Your task to perform on an android device: toggle pop-ups in chrome Image 0: 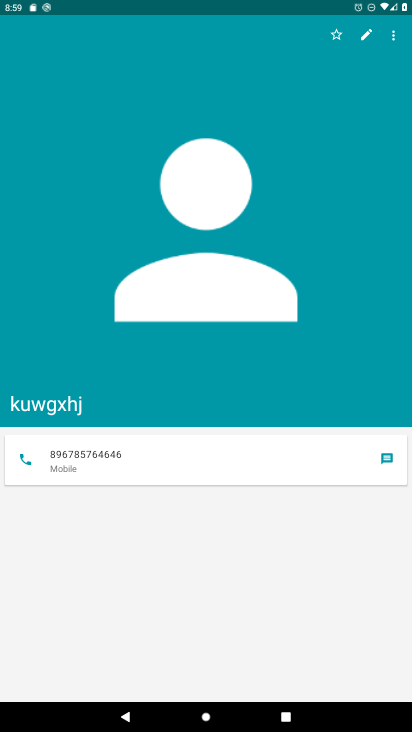
Step 0: press home button
Your task to perform on an android device: toggle pop-ups in chrome Image 1: 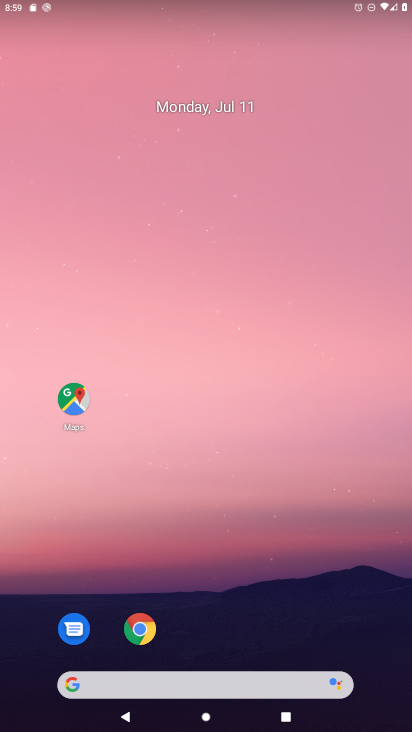
Step 1: click (141, 632)
Your task to perform on an android device: toggle pop-ups in chrome Image 2: 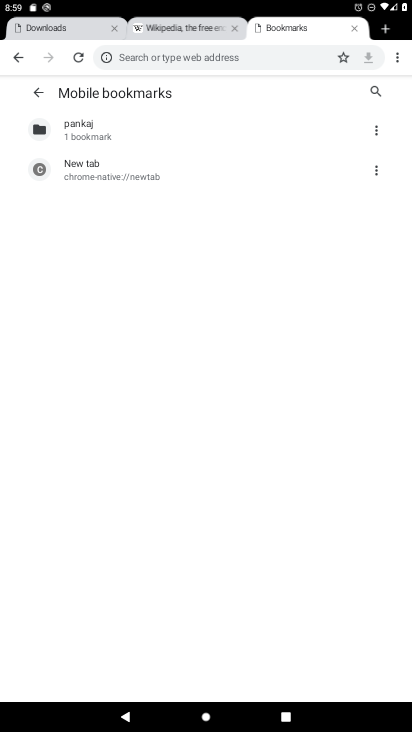
Step 2: click (392, 62)
Your task to perform on an android device: toggle pop-ups in chrome Image 3: 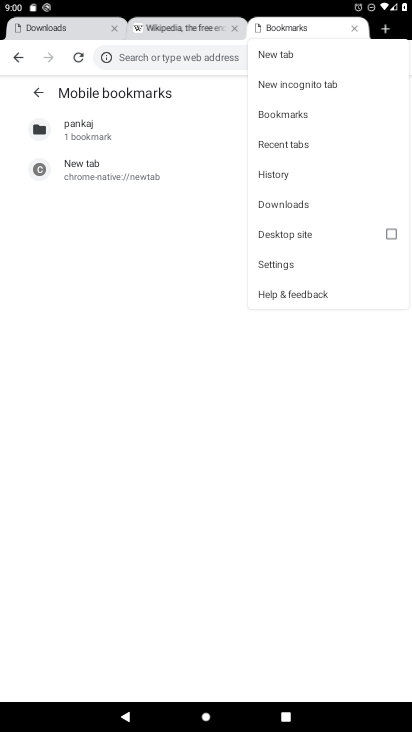
Step 3: click (284, 265)
Your task to perform on an android device: toggle pop-ups in chrome Image 4: 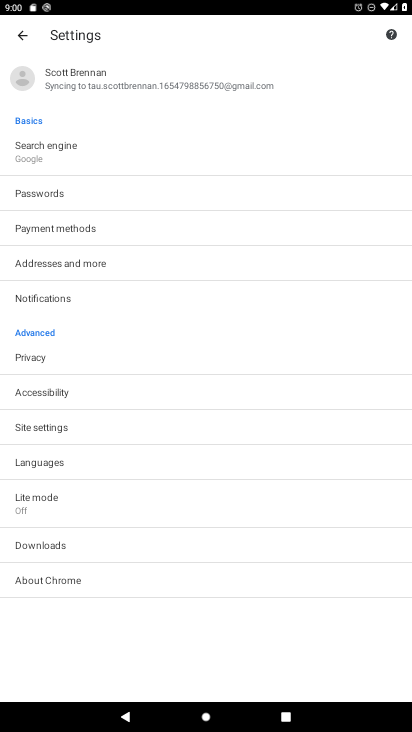
Step 4: click (64, 429)
Your task to perform on an android device: toggle pop-ups in chrome Image 5: 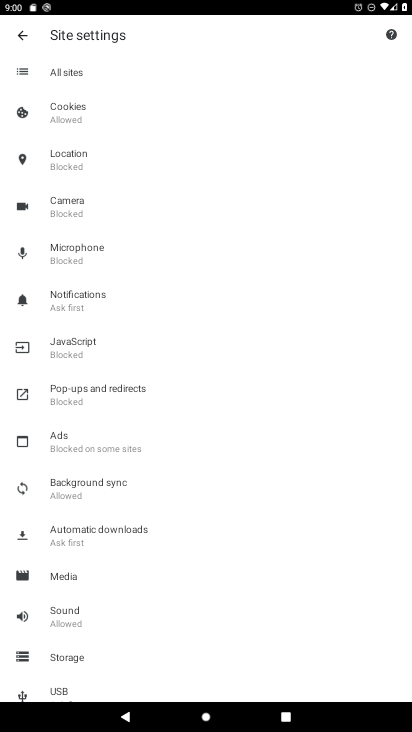
Step 5: click (94, 392)
Your task to perform on an android device: toggle pop-ups in chrome Image 6: 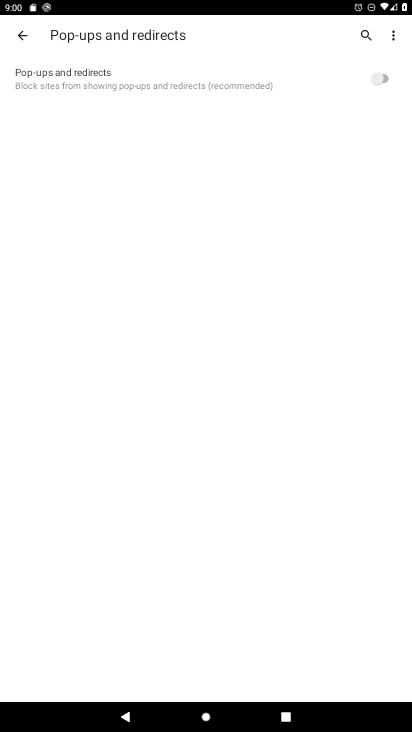
Step 6: click (378, 76)
Your task to perform on an android device: toggle pop-ups in chrome Image 7: 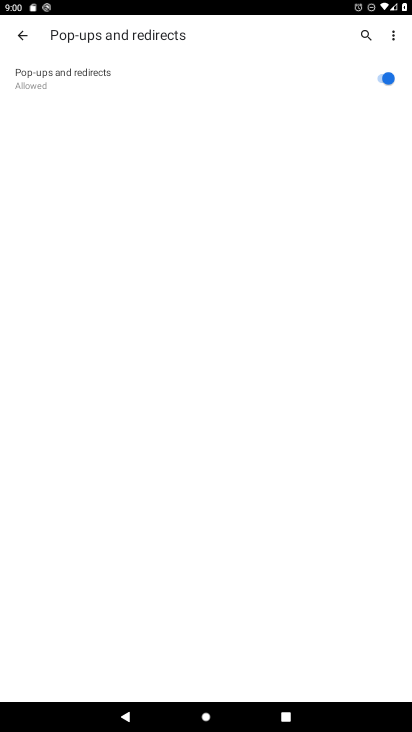
Step 7: task complete